Your task to perform on an android device: Go to wifi settings Image 0: 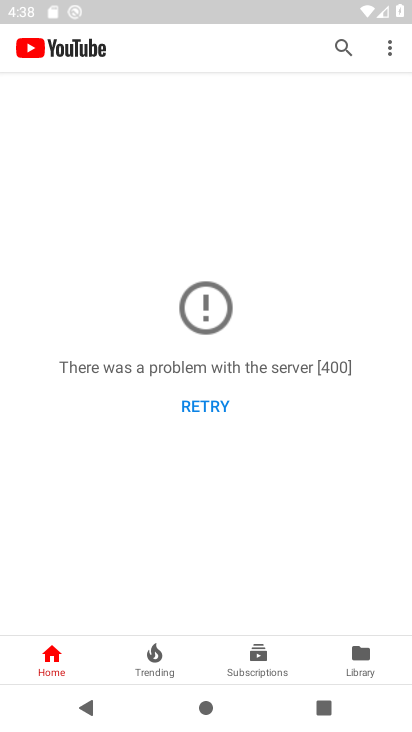
Step 0: press back button
Your task to perform on an android device: Go to wifi settings Image 1: 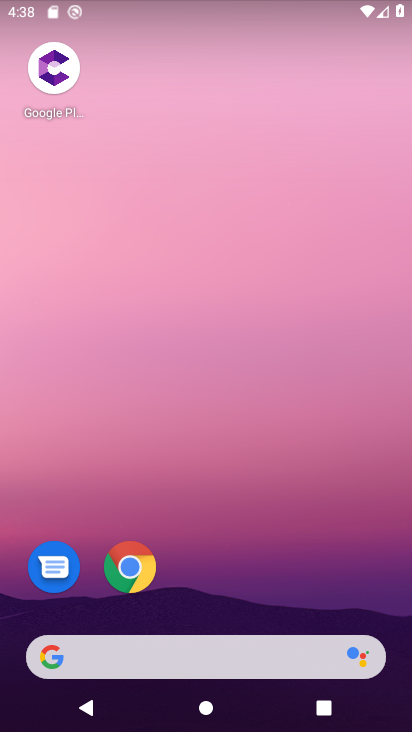
Step 1: drag from (280, 561) to (185, 96)
Your task to perform on an android device: Go to wifi settings Image 2: 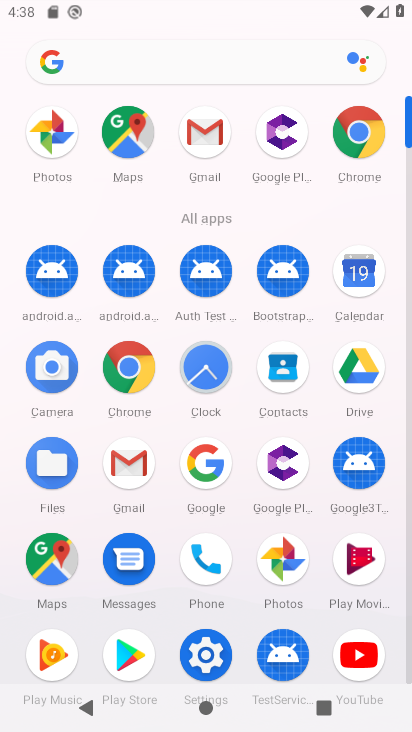
Step 2: click (205, 654)
Your task to perform on an android device: Go to wifi settings Image 3: 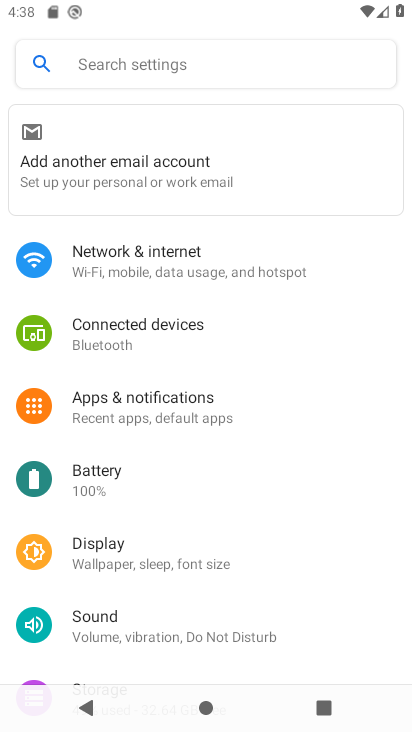
Step 3: click (144, 259)
Your task to perform on an android device: Go to wifi settings Image 4: 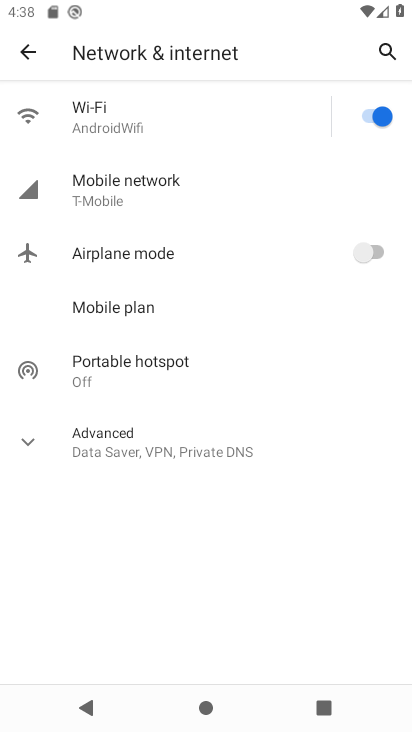
Step 4: click (97, 126)
Your task to perform on an android device: Go to wifi settings Image 5: 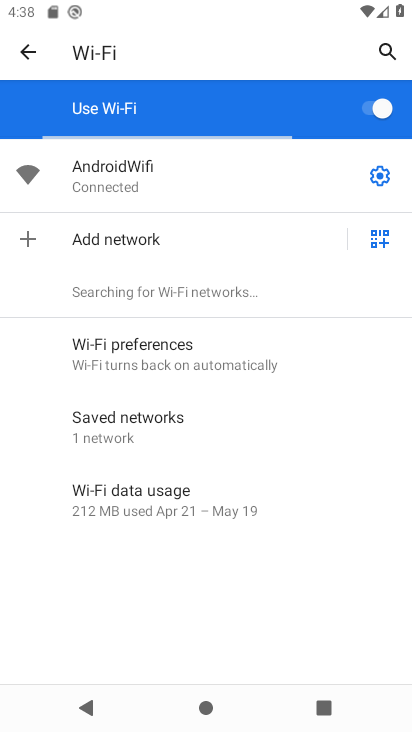
Step 5: click (381, 177)
Your task to perform on an android device: Go to wifi settings Image 6: 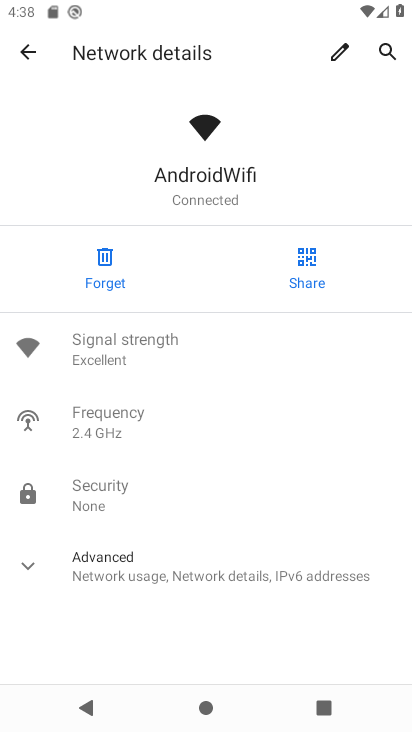
Step 6: task complete